Your task to perform on an android device: Search for vegetarian restaurants on Maps Image 0: 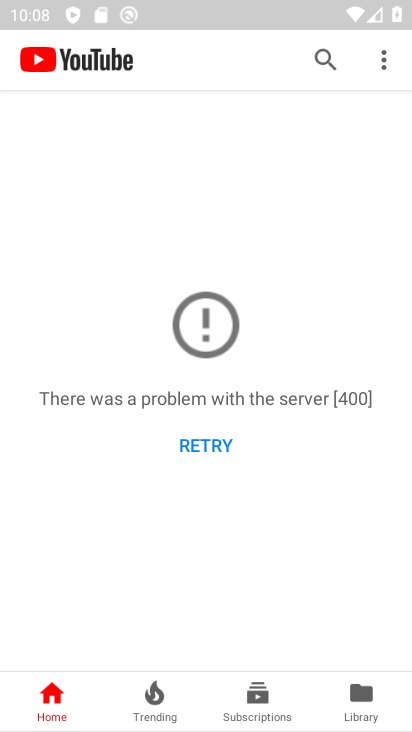
Step 0: press home button
Your task to perform on an android device: Search for vegetarian restaurants on Maps Image 1: 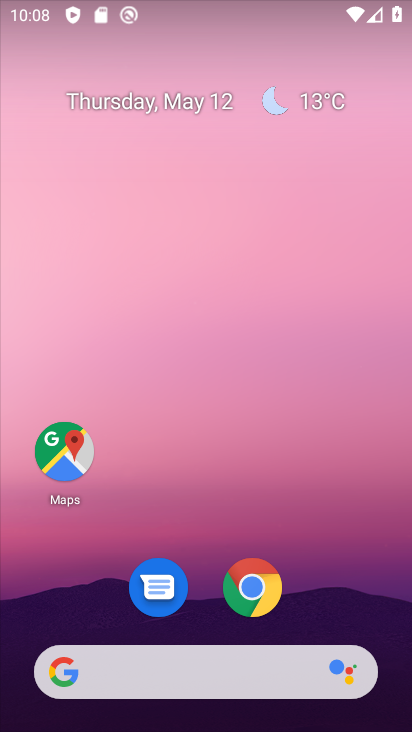
Step 1: click (59, 473)
Your task to perform on an android device: Search for vegetarian restaurants on Maps Image 2: 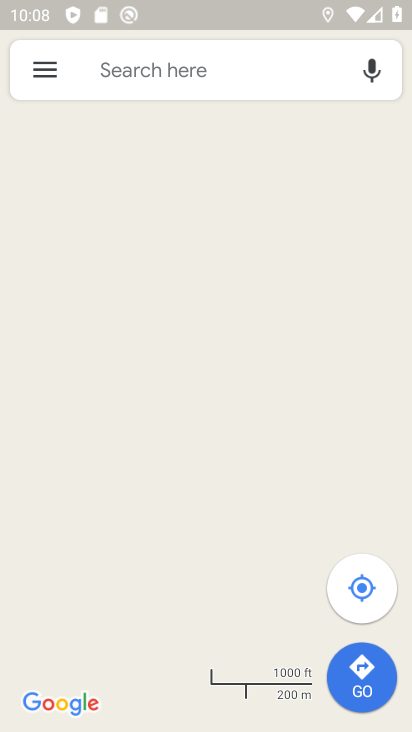
Step 2: click (161, 57)
Your task to perform on an android device: Search for vegetarian restaurants on Maps Image 3: 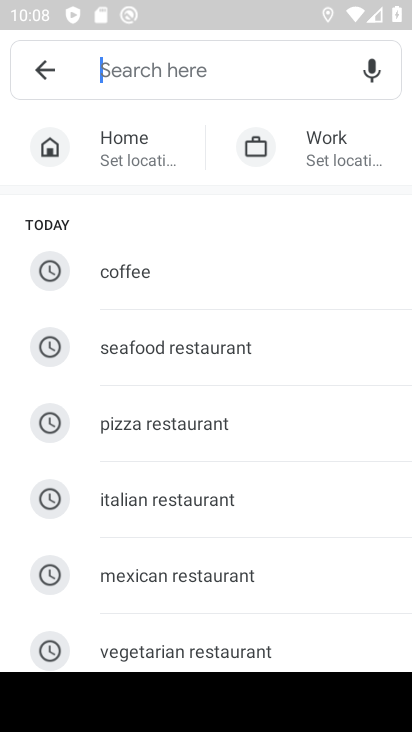
Step 3: type "vegetar"
Your task to perform on an android device: Search for vegetarian restaurants on Maps Image 4: 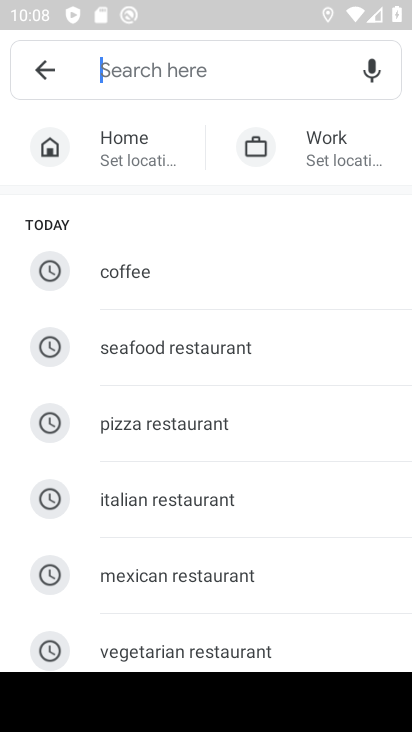
Step 4: click (240, 655)
Your task to perform on an android device: Search for vegetarian restaurants on Maps Image 5: 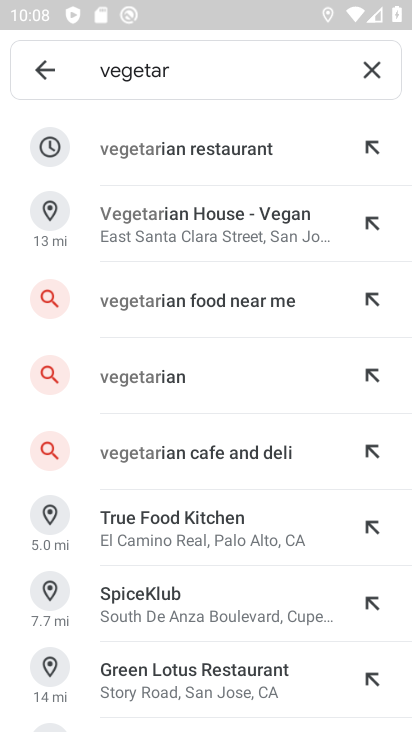
Step 5: click (254, 154)
Your task to perform on an android device: Search for vegetarian restaurants on Maps Image 6: 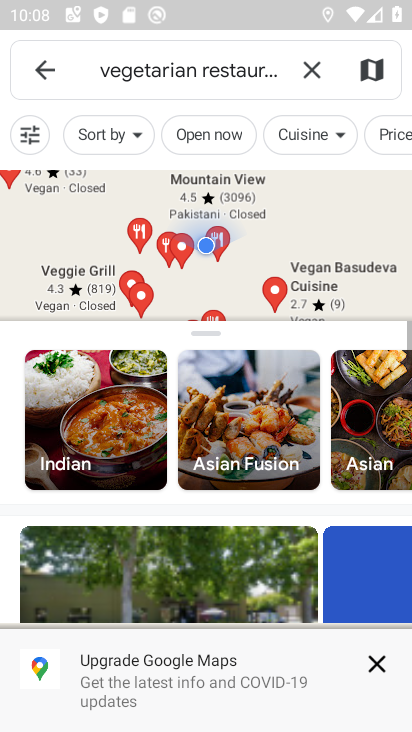
Step 6: task complete